Your task to perform on an android device: check storage Image 0: 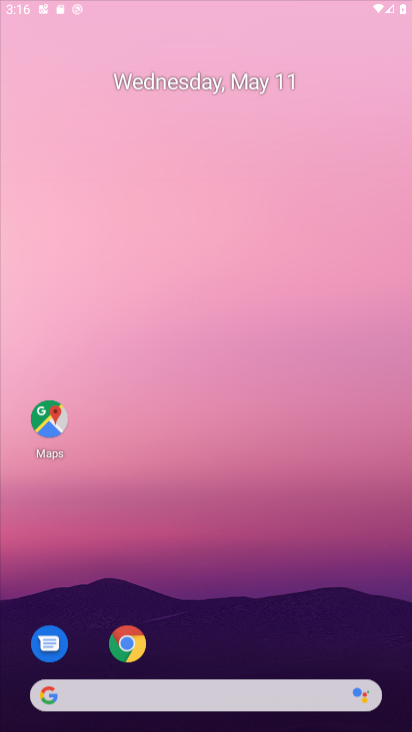
Step 0: click (115, 39)
Your task to perform on an android device: check storage Image 1: 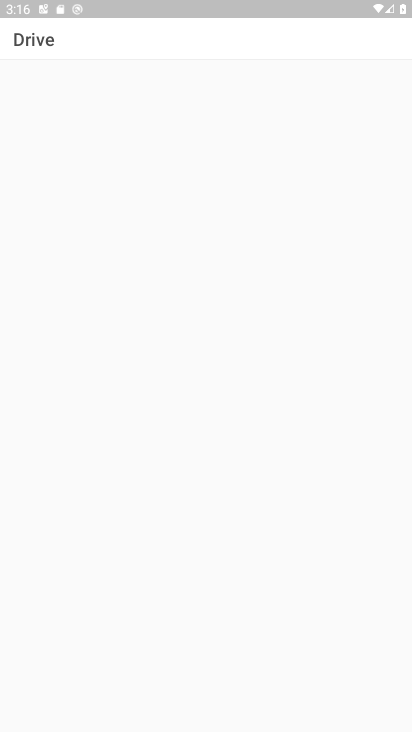
Step 1: press home button
Your task to perform on an android device: check storage Image 2: 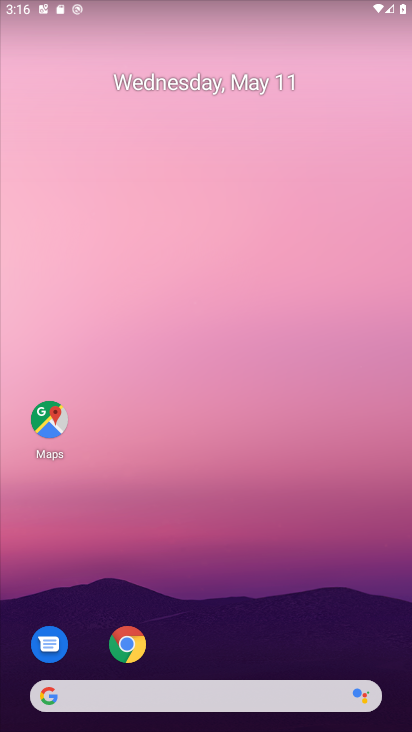
Step 2: drag from (216, 675) to (238, 47)
Your task to perform on an android device: check storage Image 3: 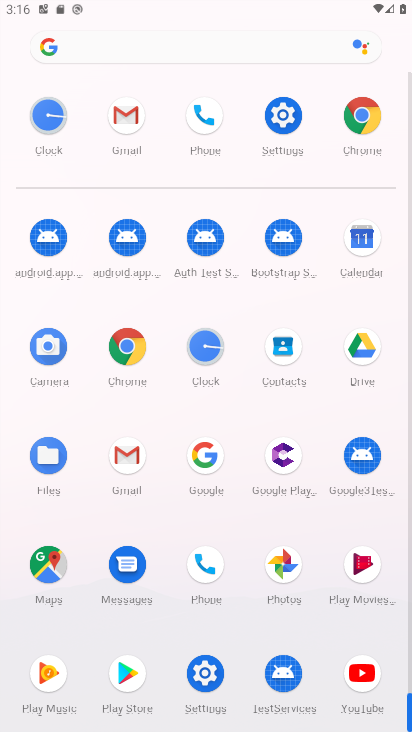
Step 3: click (191, 676)
Your task to perform on an android device: check storage Image 4: 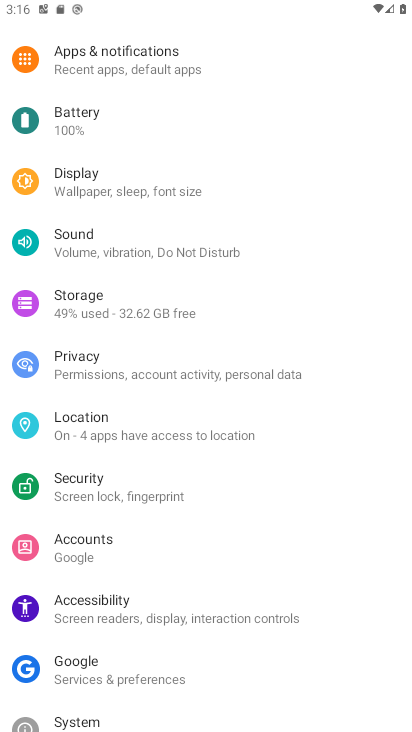
Step 4: click (97, 305)
Your task to perform on an android device: check storage Image 5: 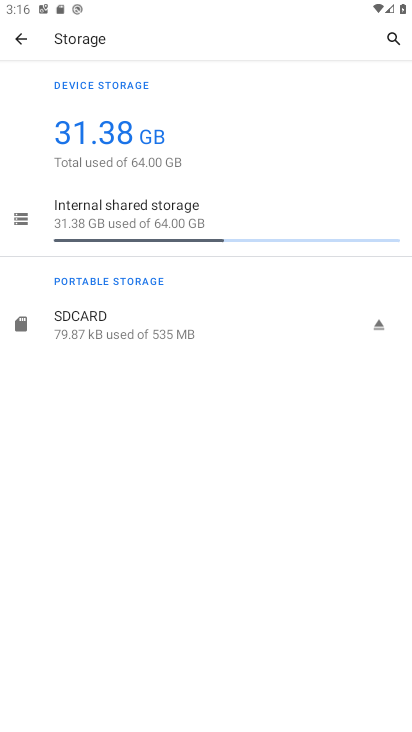
Step 5: task complete